Your task to perform on an android device: Search for Mexican restaurants on Maps Image 0: 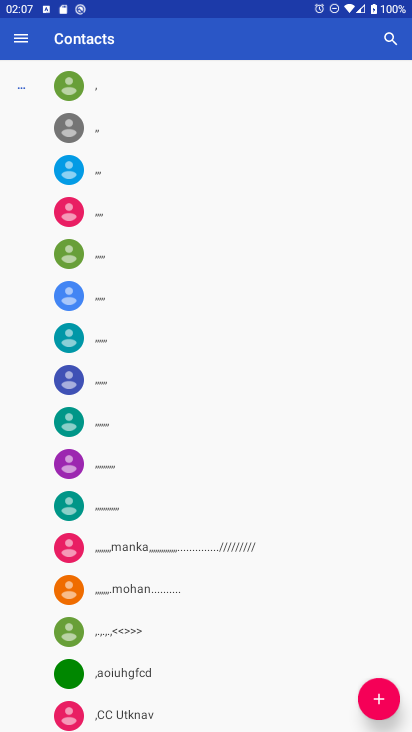
Step 0: press home button
Your task to perform on an android device: Search for Mexican restaurants on Maps Image 1: 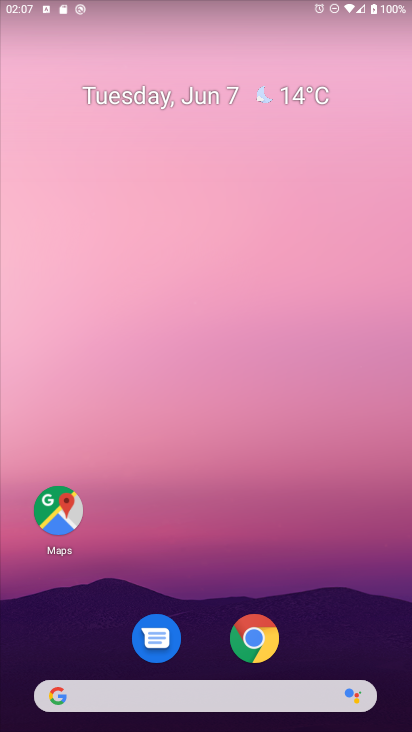
Step 1: drag from (214, 719) to (310, 175)
Your task to perform on an android device: Search for Mexican restaurants on Maps Image 2: 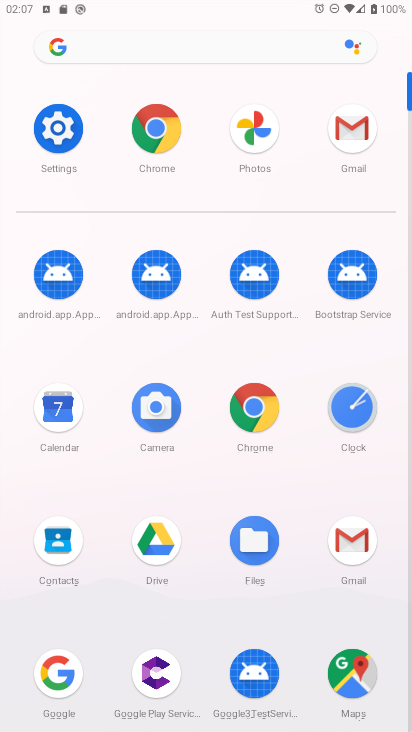
Step 2: click (357, 661)
Your task to perform on an android device: Search for Mexican restaurants on Maps Image 3: 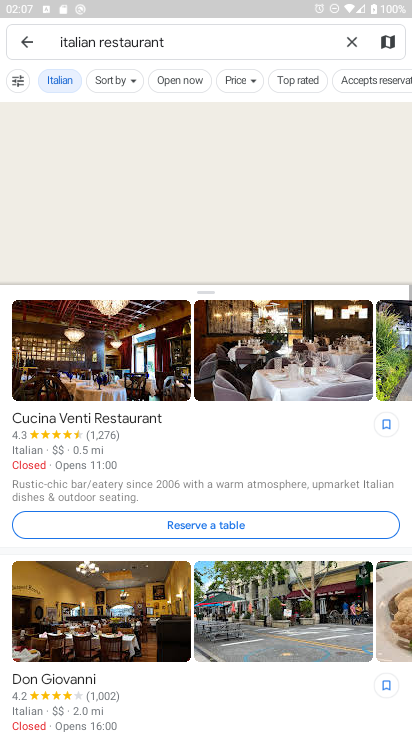
Step 3: click (356, 41)
Your task to perform on an android device: Search for Mexican restaurants on Maps Image 4: 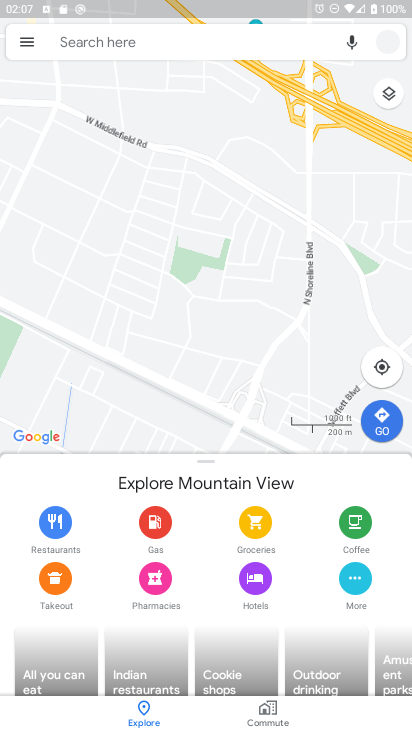
Step 4: click (235, 49)
Your task to perform on an android device: Search for Mexican restaurants on Maps Image 5: 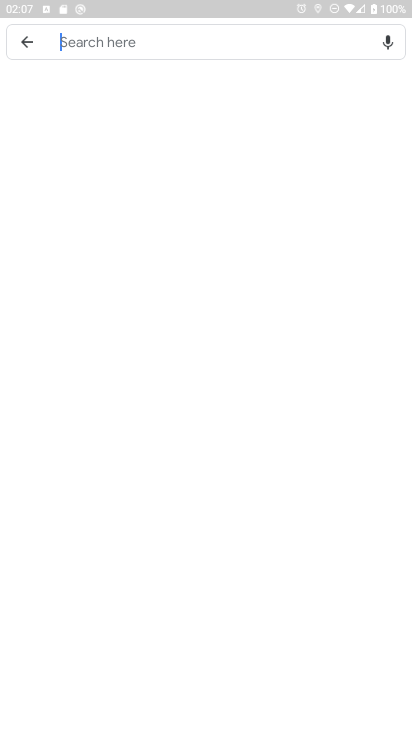
Step 5: click (110, 49)
Your task to perform on an android device: Search for Mexican restaurants on Maps Image 6: 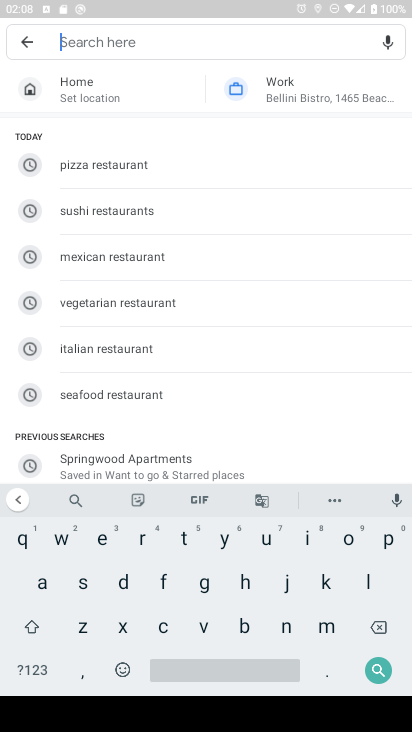
Step 6: click (130, 257)
Your task to perform on an android device: Search for Mexican restaurants on Maps Image 7: 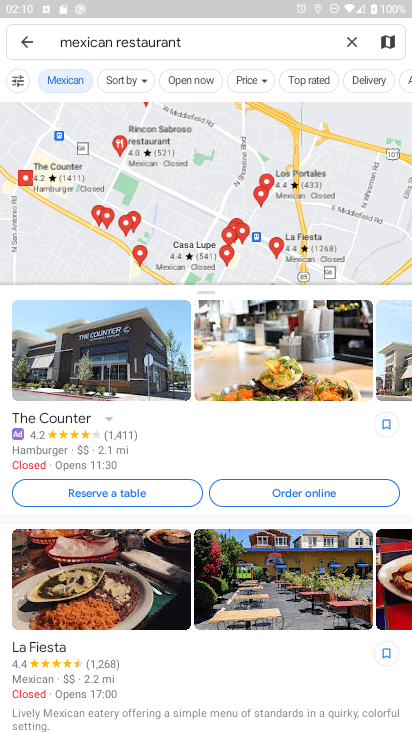
Step 7: task complete